Your task to perform on an android device: delete the emails in spam in the gmail app Image 0: 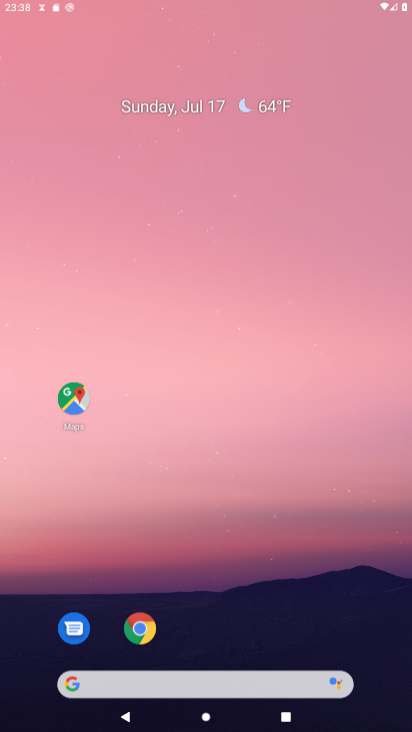
Step 0: click (215, 225)
Your task to perform on an android device: delete the emails in spam in the gmail app Image 1: 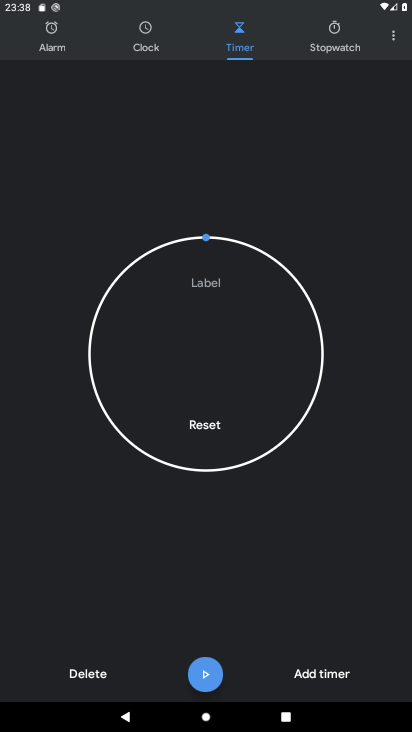
Step 1: press home button
Your task to perform on an android device: delete the emails in spam in the gmail app Image 2: 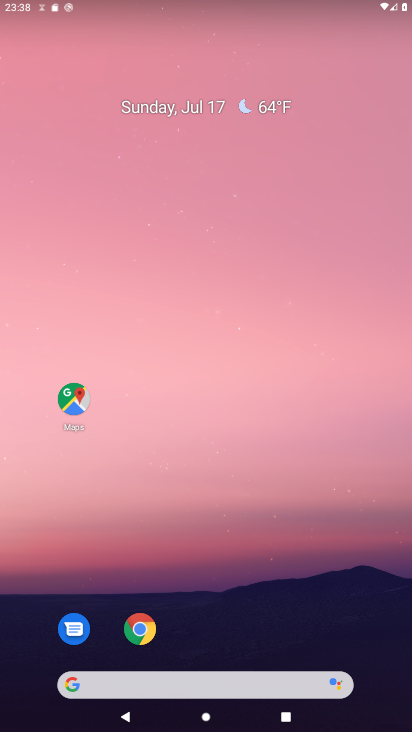
Step 2: drag from (239, 626) to (230, 355)
Your task to perform on an android device: delete the emails in spam in the gmail app Image 3: 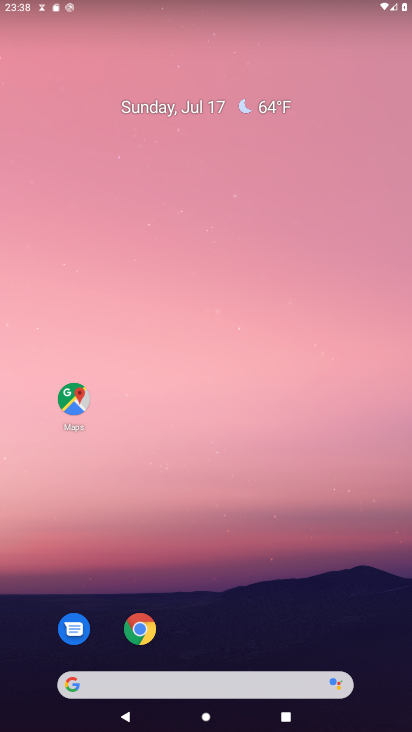
Step 3: drag from (227, 645) to (241, 146)
Your task to perform on an android device: delete the emails in spam in the gmail app Image 4: 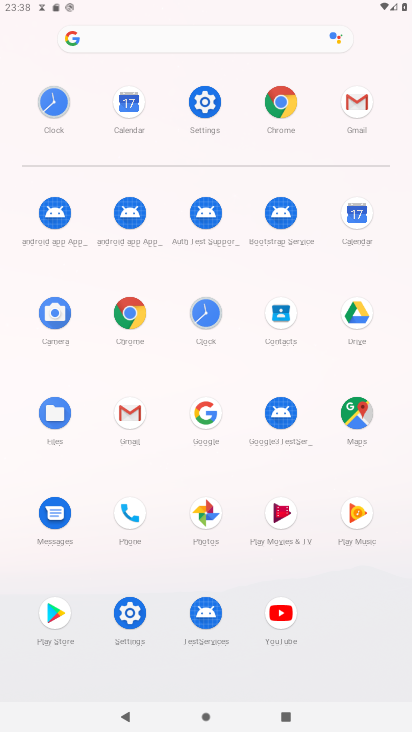
Step 4: click (140, 414)
Your task to perform on an android device: delete the emails in spam in the gmail app Image 5: 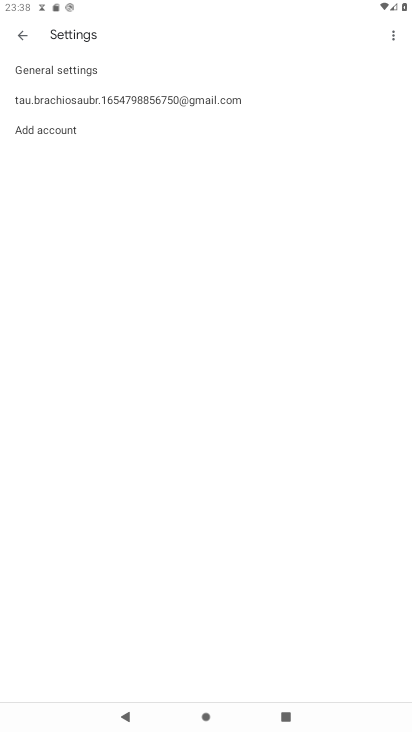
Step 5: click (26, 36)
Your task to perform on an android device: delete the emails in spam in the gmail app Image 6: 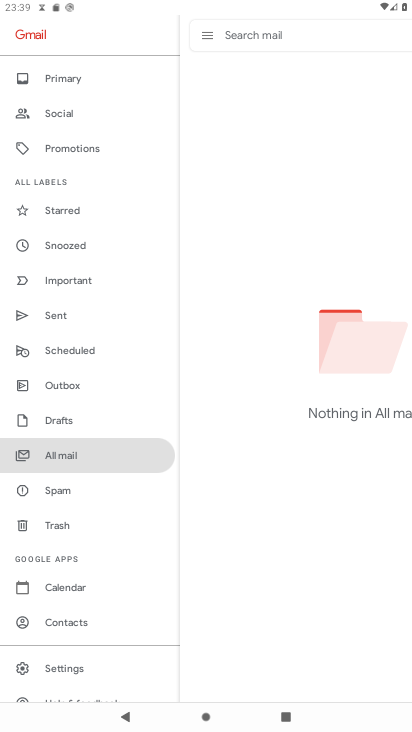
Step 6: click (105, 446)
Your task to perform on an android device: delete the emails in spam in the gmail app Image 7: 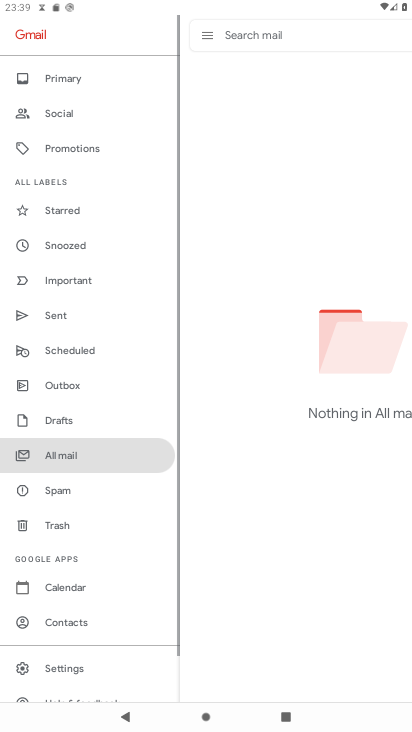
Step 7: task complete